Your task to perform on an android device: Show the shopping cart on newegg. Search for dell alienware on newegg, select the first entry, add it to the cart, then select checkout. Image 0: 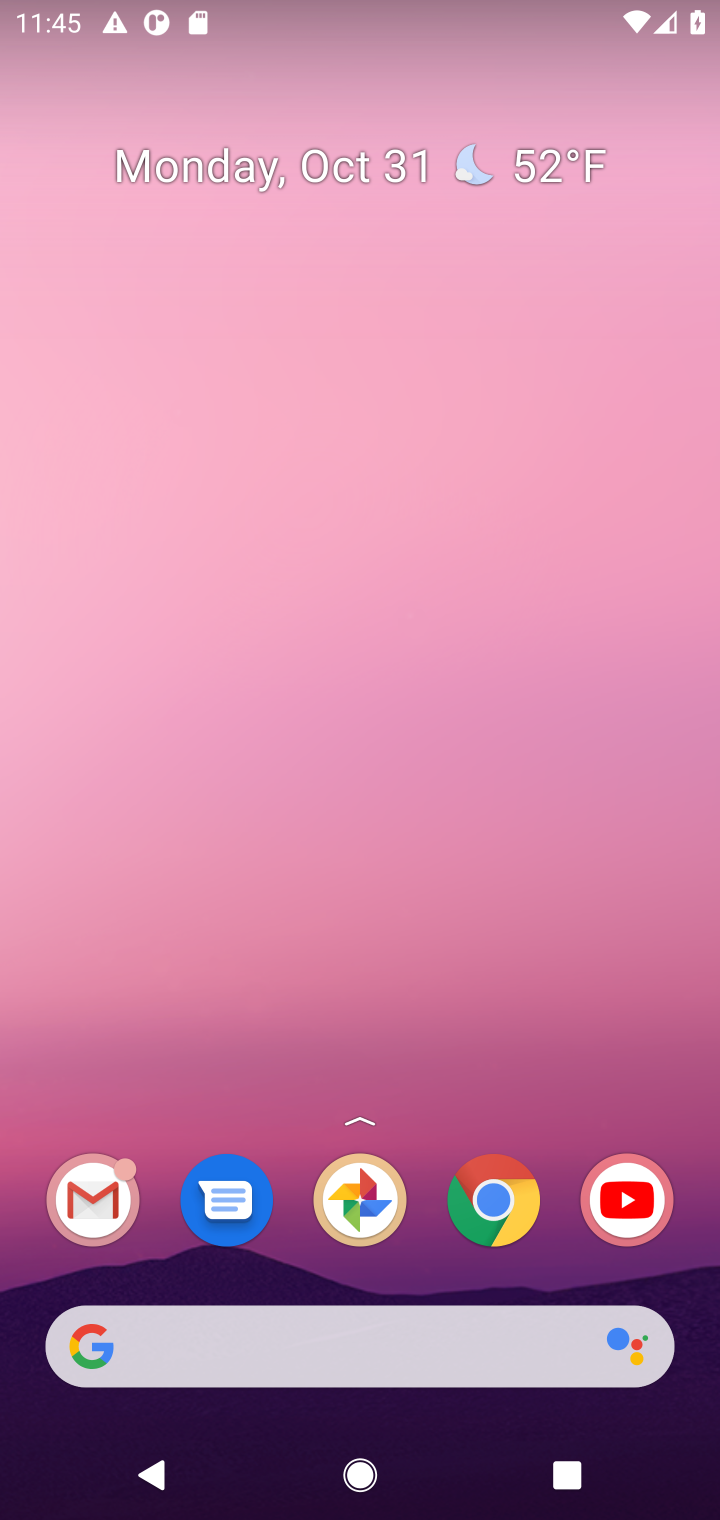
Step 0: click (487, 1212)
Your task to perform on an android device: Show the shopping cart on newegg. Search for dell alienware on newegg, select the first entry, add it to the cart, then select checkout. Image 1: 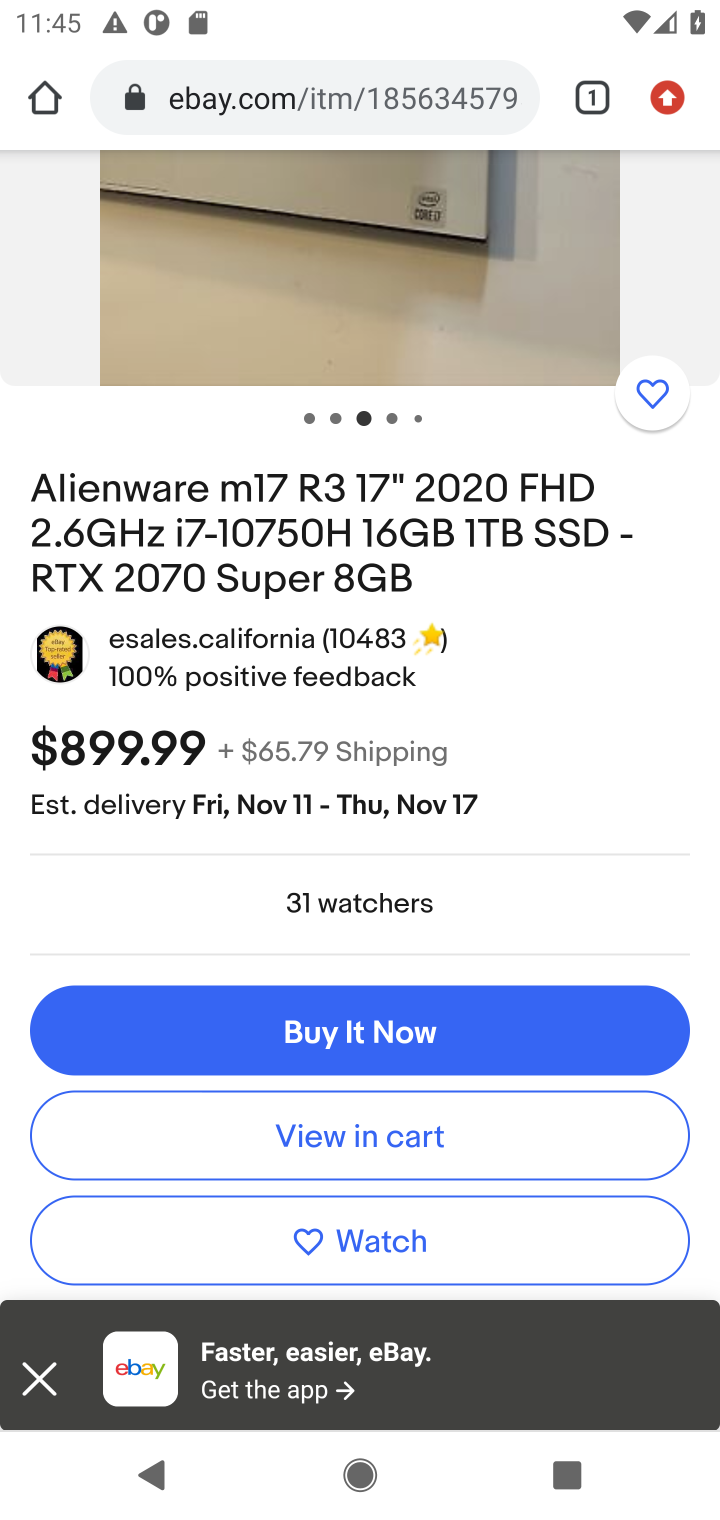
Step 1: click (296, 97)
Your task to perform on an android device: Show the shopping cart on newegg. Search for dell alienware on newegg, select the first entry, add it to the cart, then select checkout. Image 2: 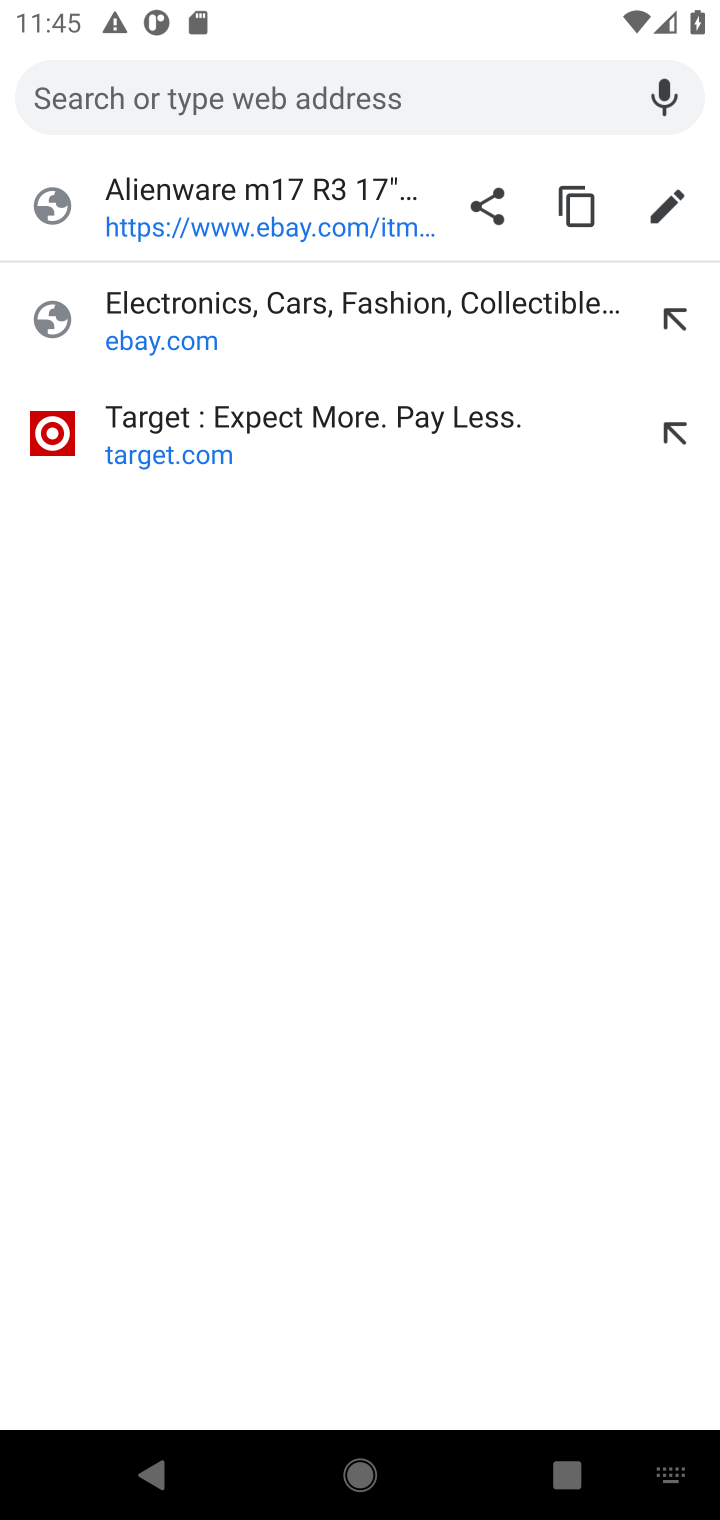
Step 2: type "newegg.com"
Your task to perform on an android device: Show the shopping cart on newegg. Search for dell alienware on newegg, select the first entry, add it to the cart, then select checkout. Image 3: 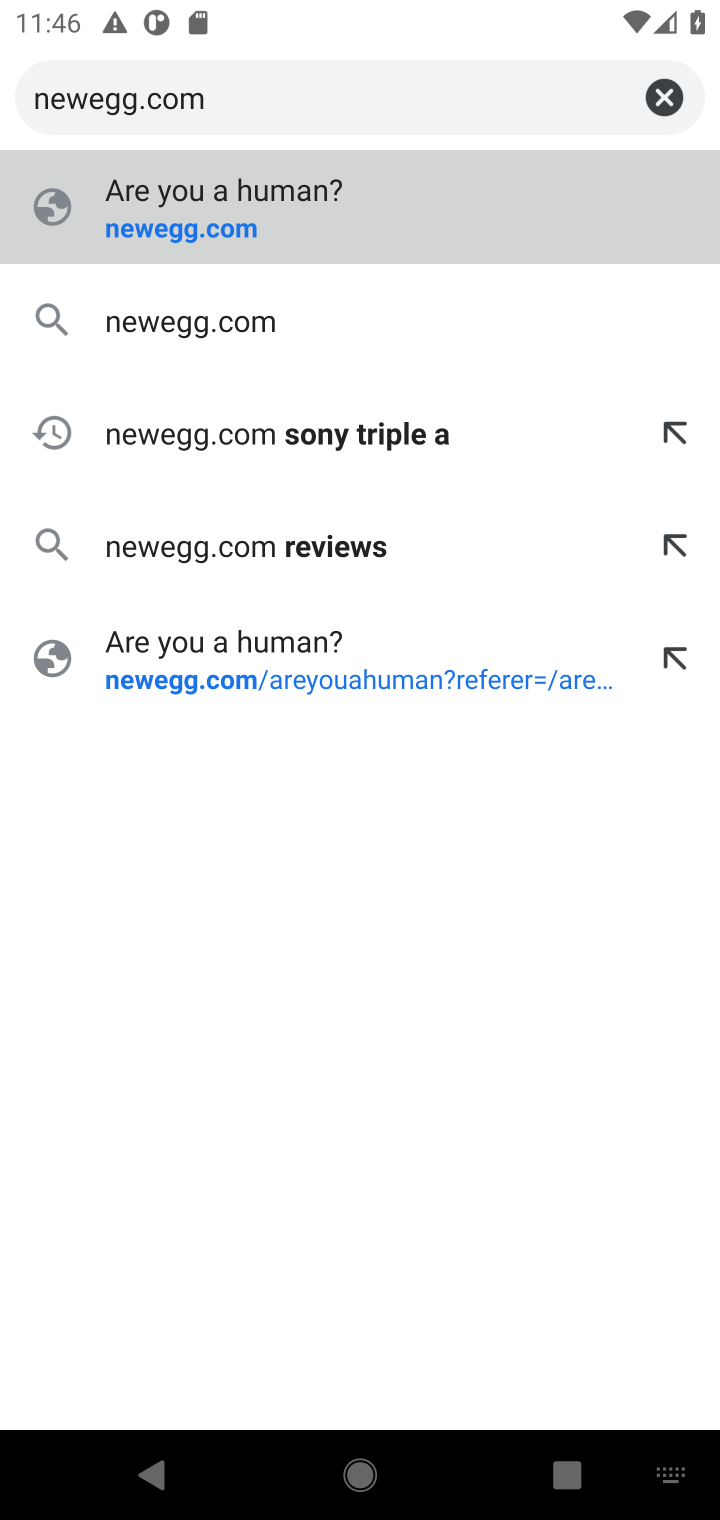
Step 3: click (226, 339)
Your task to perform on an android device: Show the shopping cart on newegg. Search for dell alienware on newegg, select the first entry, add it to the cart, then select checkout. Image 4: 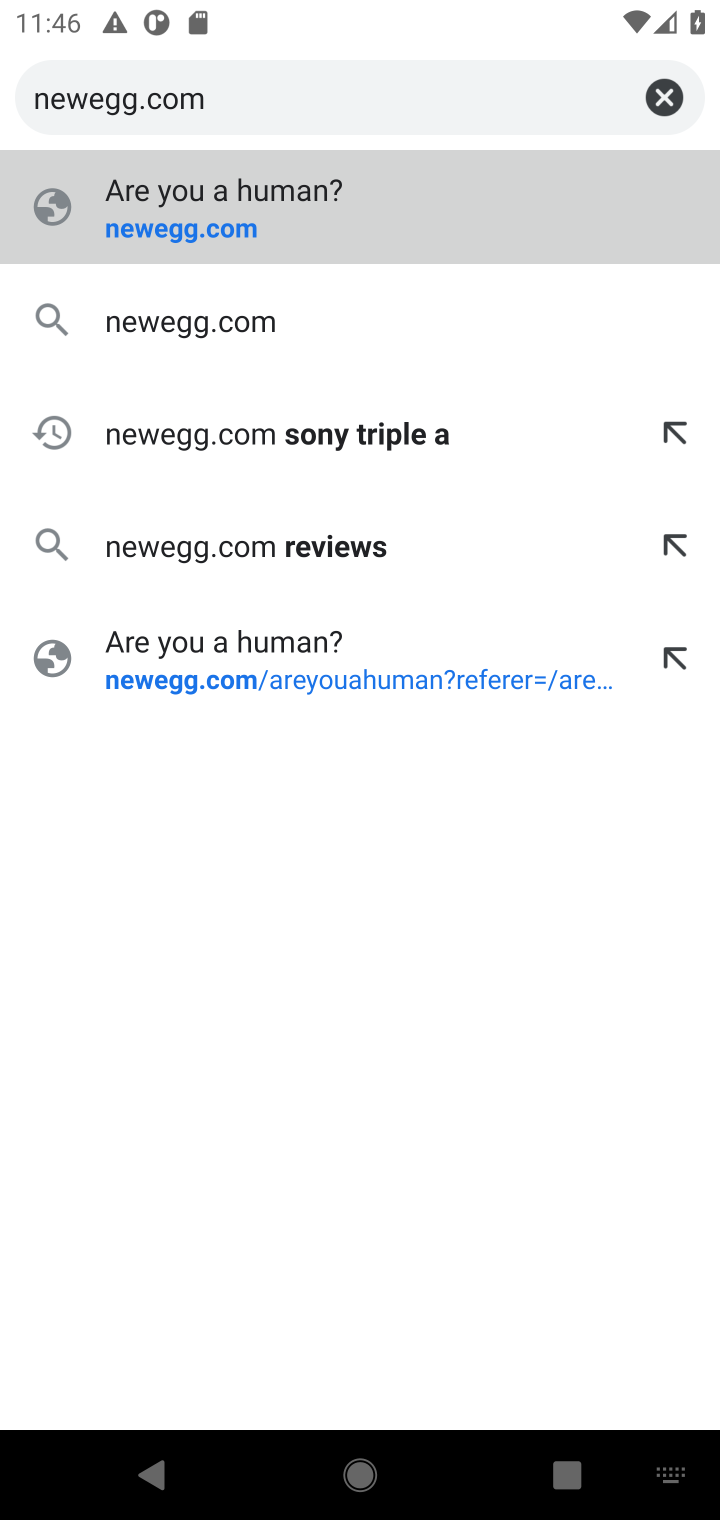
Step 4: click (159, 328)
Your task to perform on an android device: Show the shopping cart on newegg. Search for dell alienware on newegg, select the first entry, add it to the cart, then select checkout. Image 5: 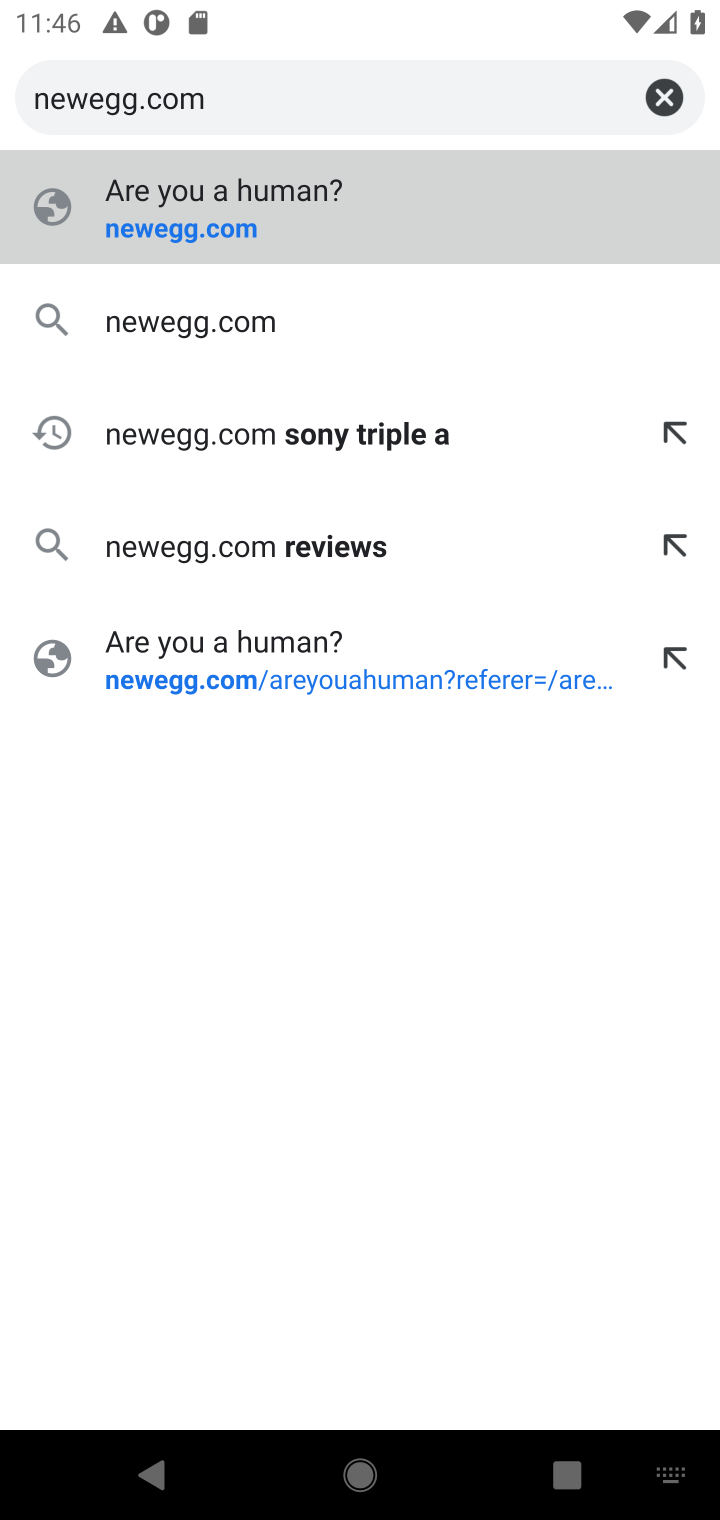
Step 5: click (226, 326)
Your task to perform on an android device: Show the shopping cart on newegg. Search for dell alienware on newegg, select the first entry, add it to the cart, then select checkout. Image 6: 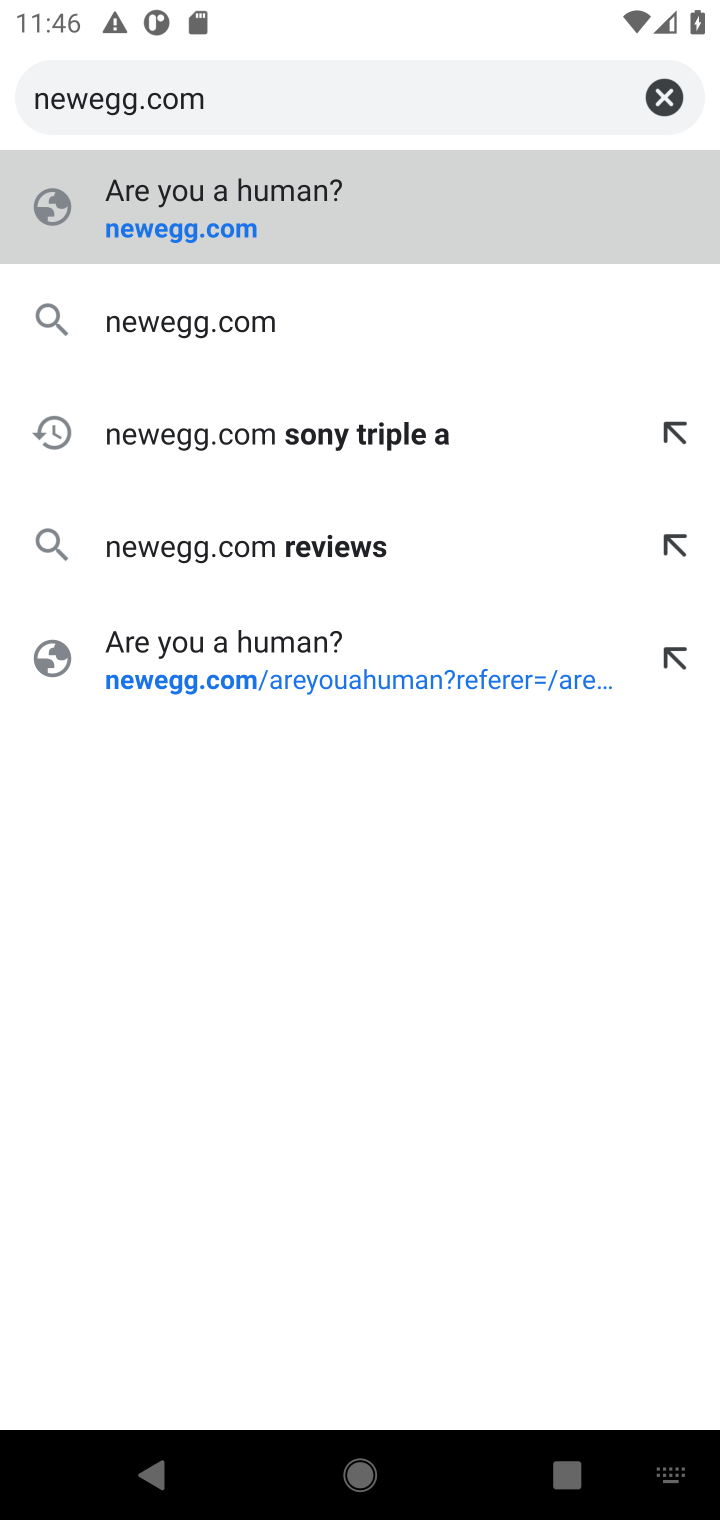
Step 6: click (185, 337)
Your task to perform on an android device: Show the shopping cart on newegg. Search for dell alienware on newegg, select the first entry, add it to the cart, then select checkout. Image 7: 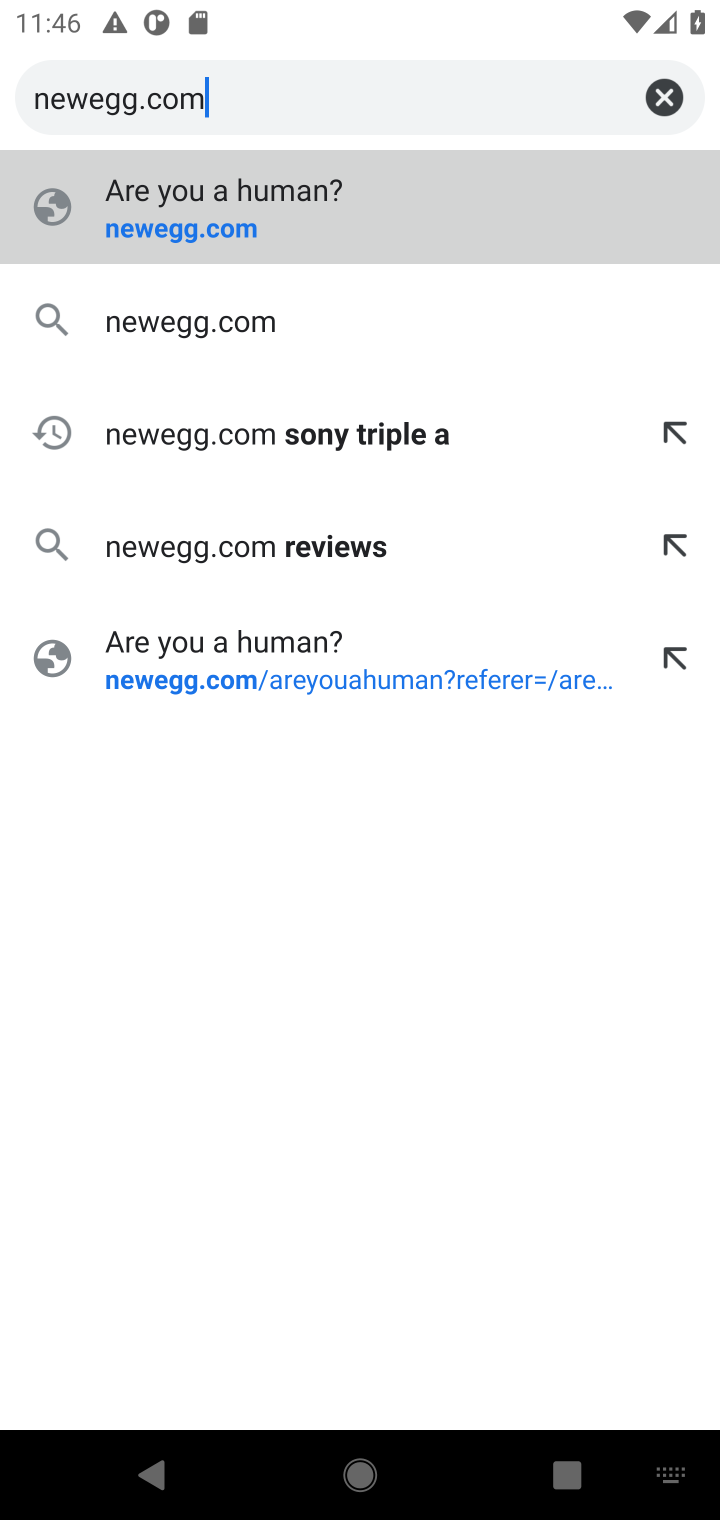
Step 7: click (238, 321)
Your task to perform on an android device: Show the shopping cart on newegg. Search for dell alienware on newegg, select the first entry, add it to the cart, then select checkout. Image 8: 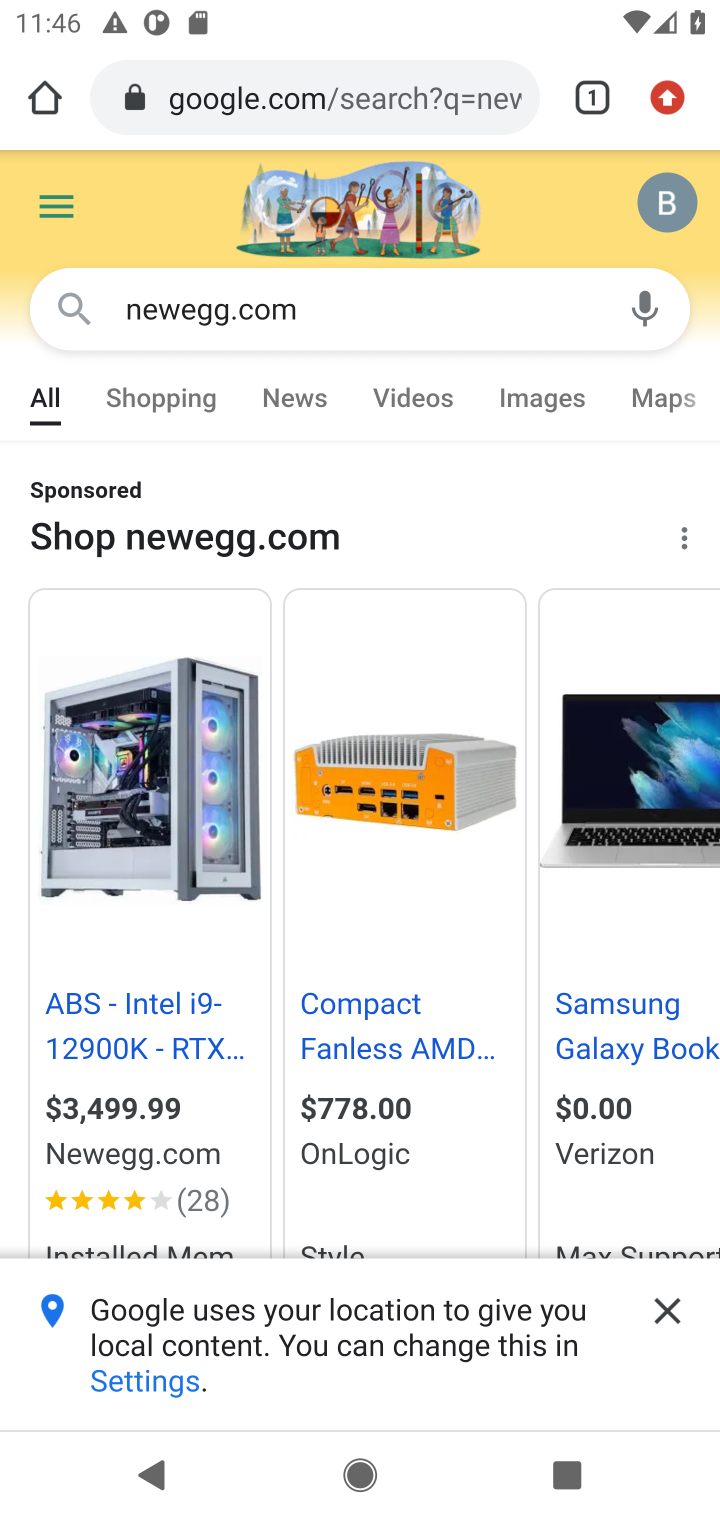
Step 8: drag from (290, 1086) to (309, 405)
Your task to perform on an android device: Show the shopping cart on newegg. Search for dell alienware on newegg, select the first entry, add it to the cart, then select checkout. Image 9: 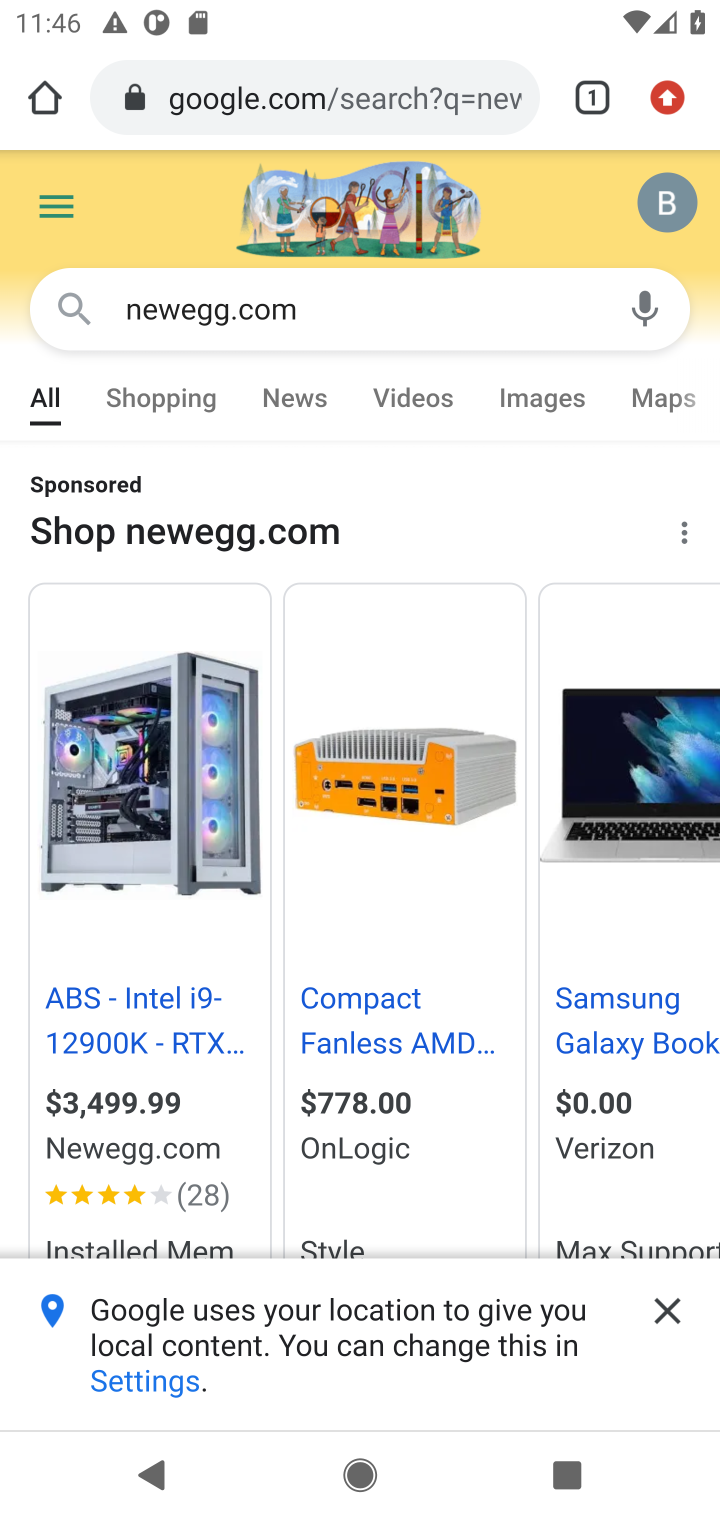
Step 9: drag from (401, 1122) to (403, 441)
Your task to perform on an android device: Show the shopping cart on newegg. Search for dell alienware on newegg, select the first entry, add it to the cart, then select checkout. Image 10: 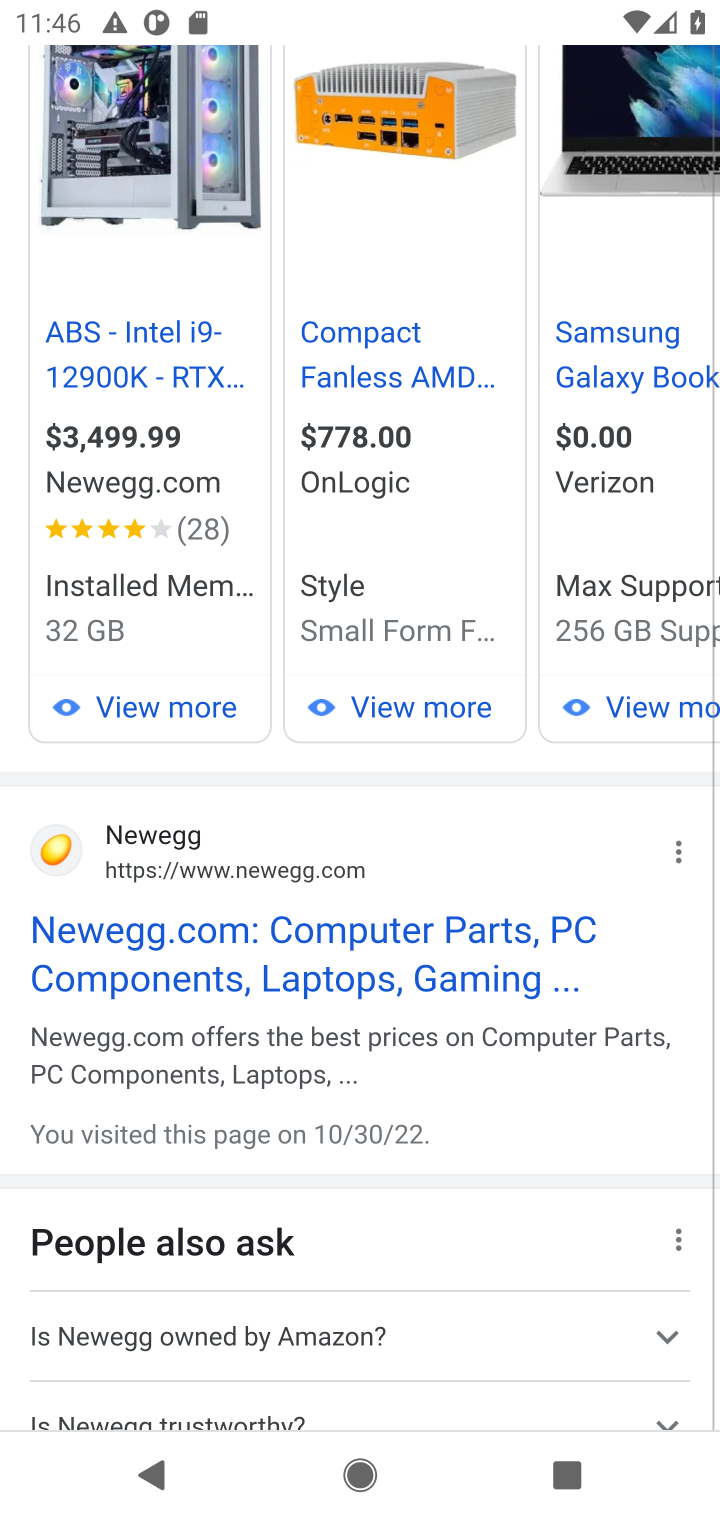
Step 10: click (173, 890)
Your task to perform on an android device: Show the shopping cart on newegg. Search for dell alienware on newegg, select the first entry, add it to the cart, then select checkout. Image 11: 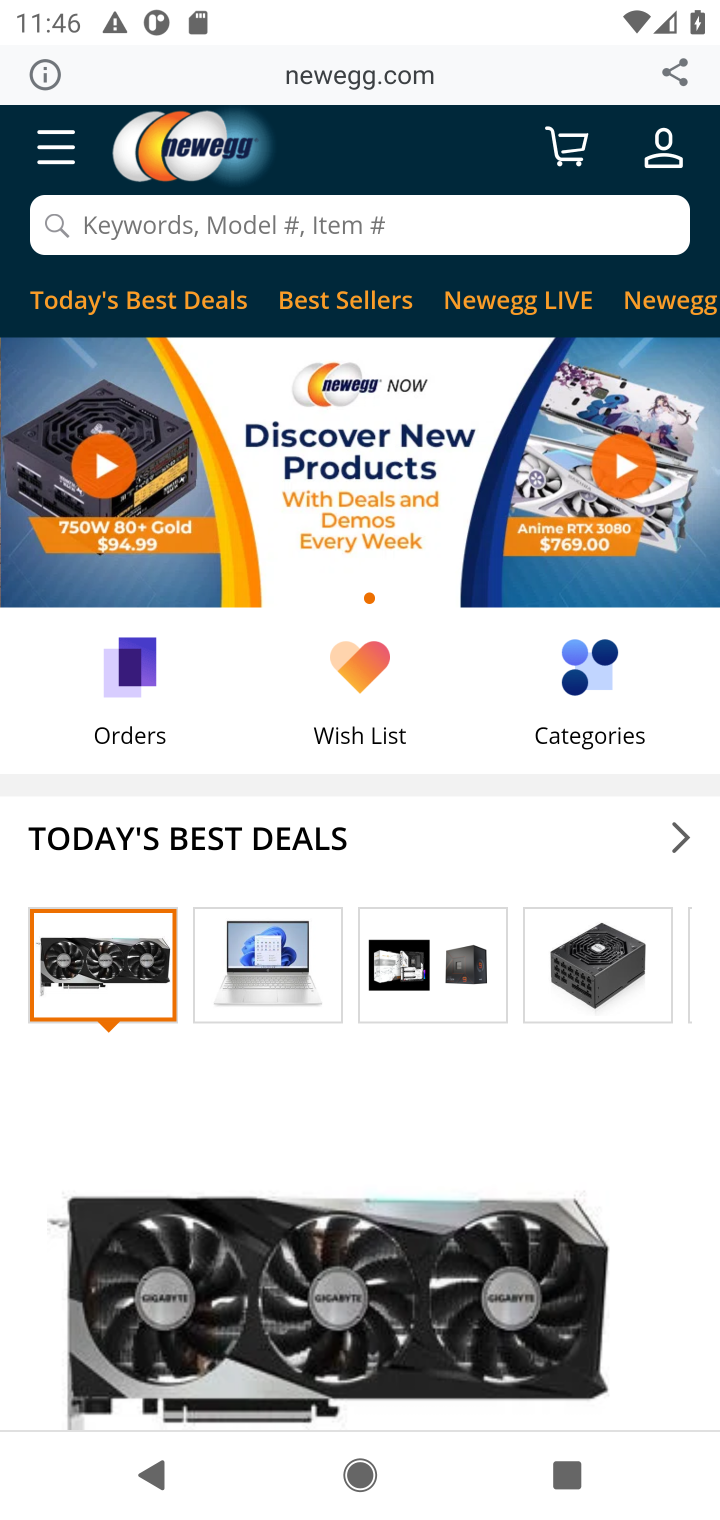
Step 11: click (555, 160)
Your task to perform on an android device: Show the shopping cart on newegg. Search for dell alienware on newegg, select the first entry, add it to the cart, then select checkout. Image 12: 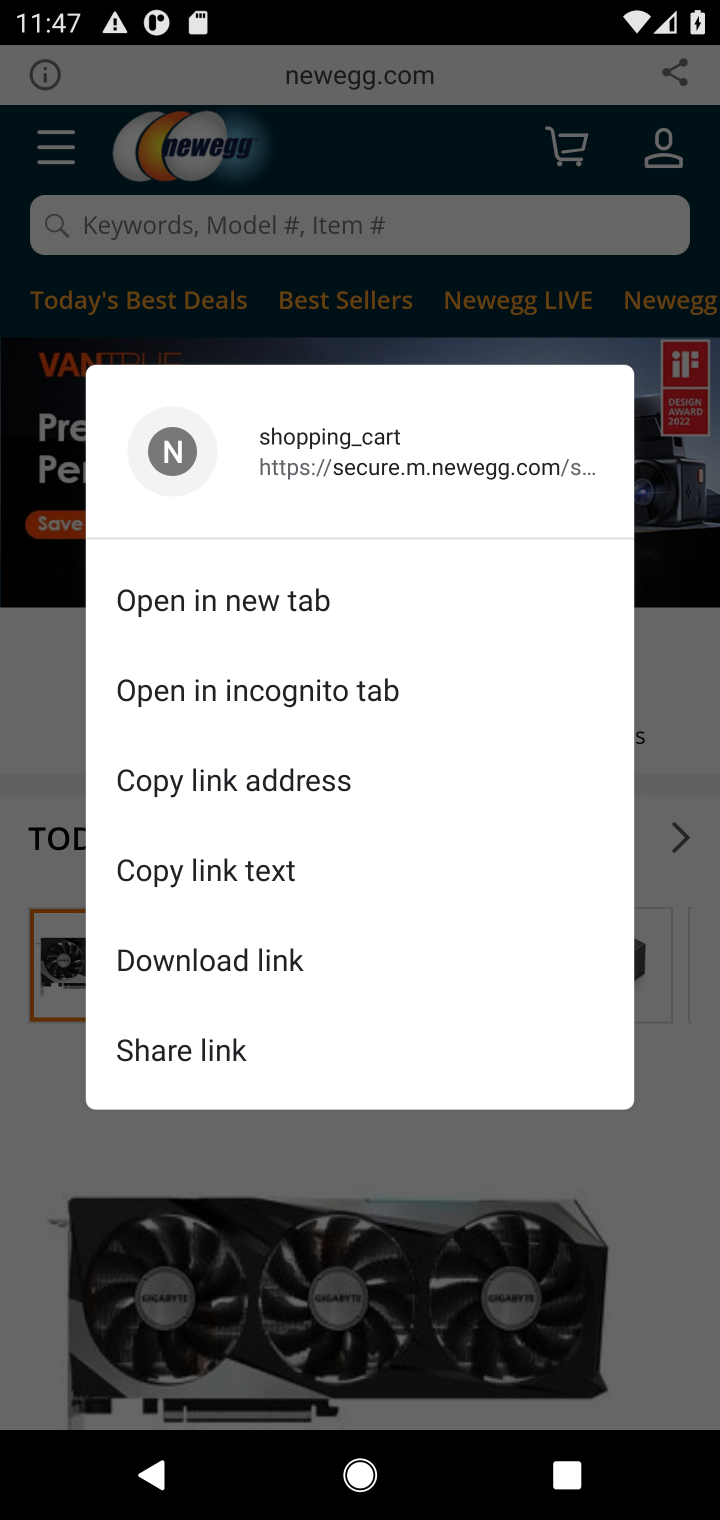
Step 12: click (570, 145)
Your task to perform on an android device: Show the shopping cart on newegg. Search for dell alienware on newegg, select the first entry, add it to the cart, then select checkout. Image 13: 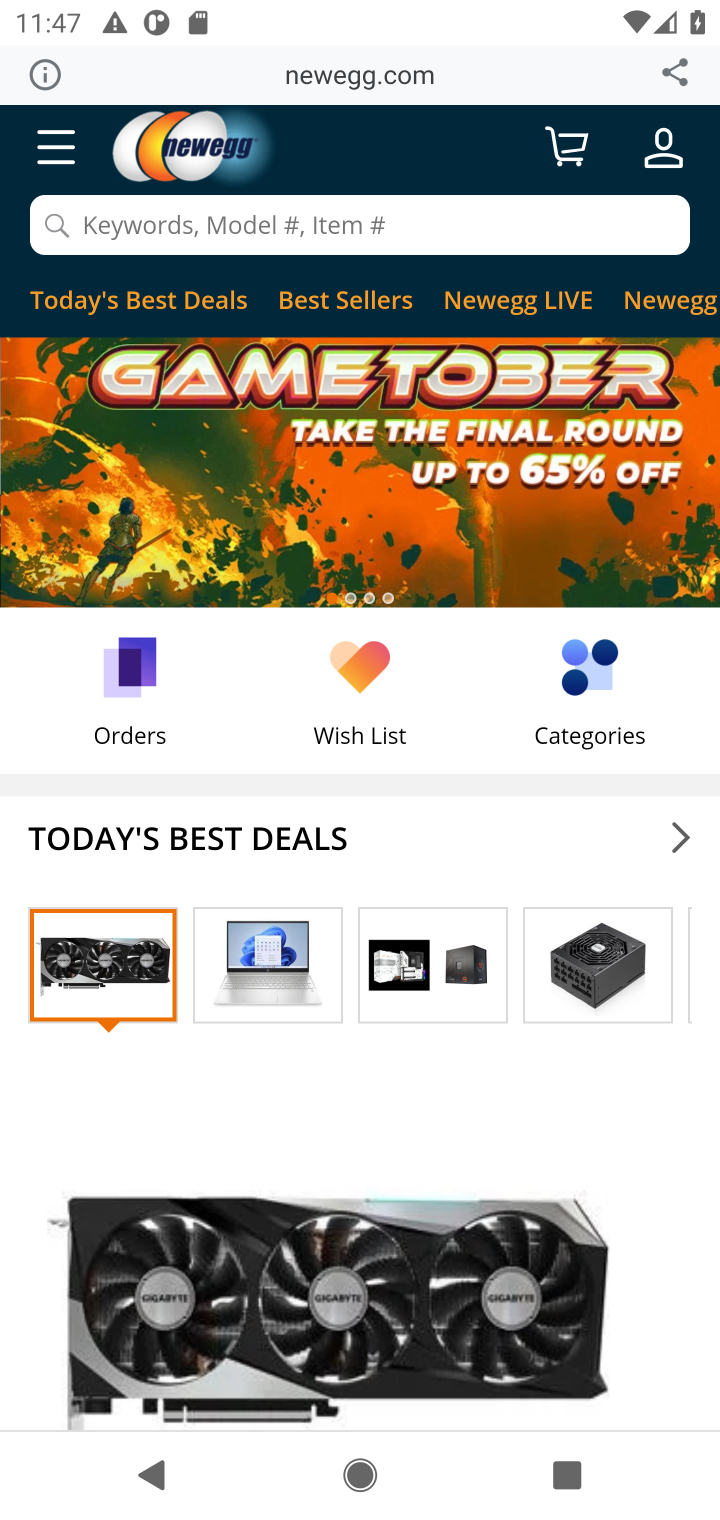
Step 13: click (571, 161)
Your task to perform on an android device: Show the shopping cart on newegg. Search for dell alienware on newegg, select the first entry, add it to the cart, then select checkout. Image 14: 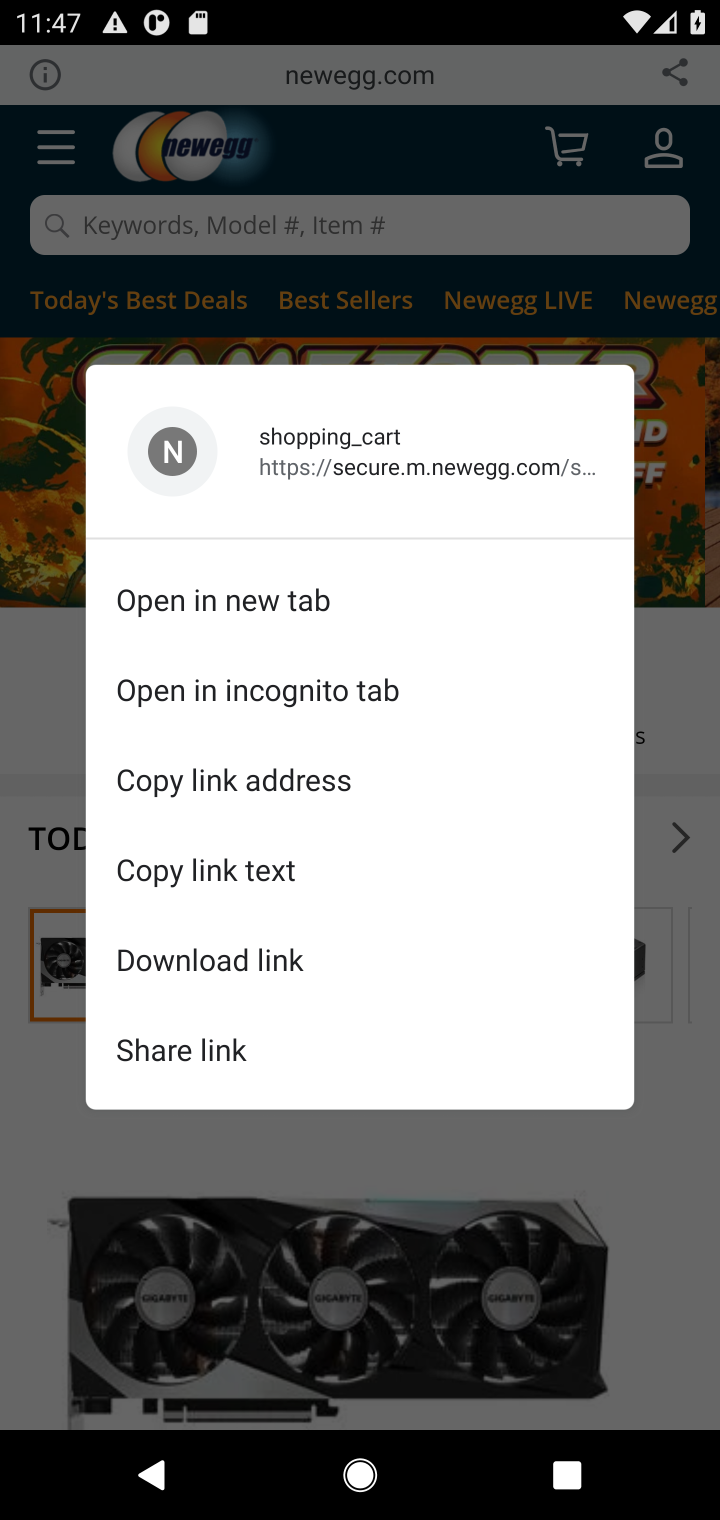
Step 14: click (571, 161)
Your task to perform on an android device: Show the shopping cart on newegg. Search for dell alienware on newegg, select the first entry, add it to the cart, then select checkout. Image 15: 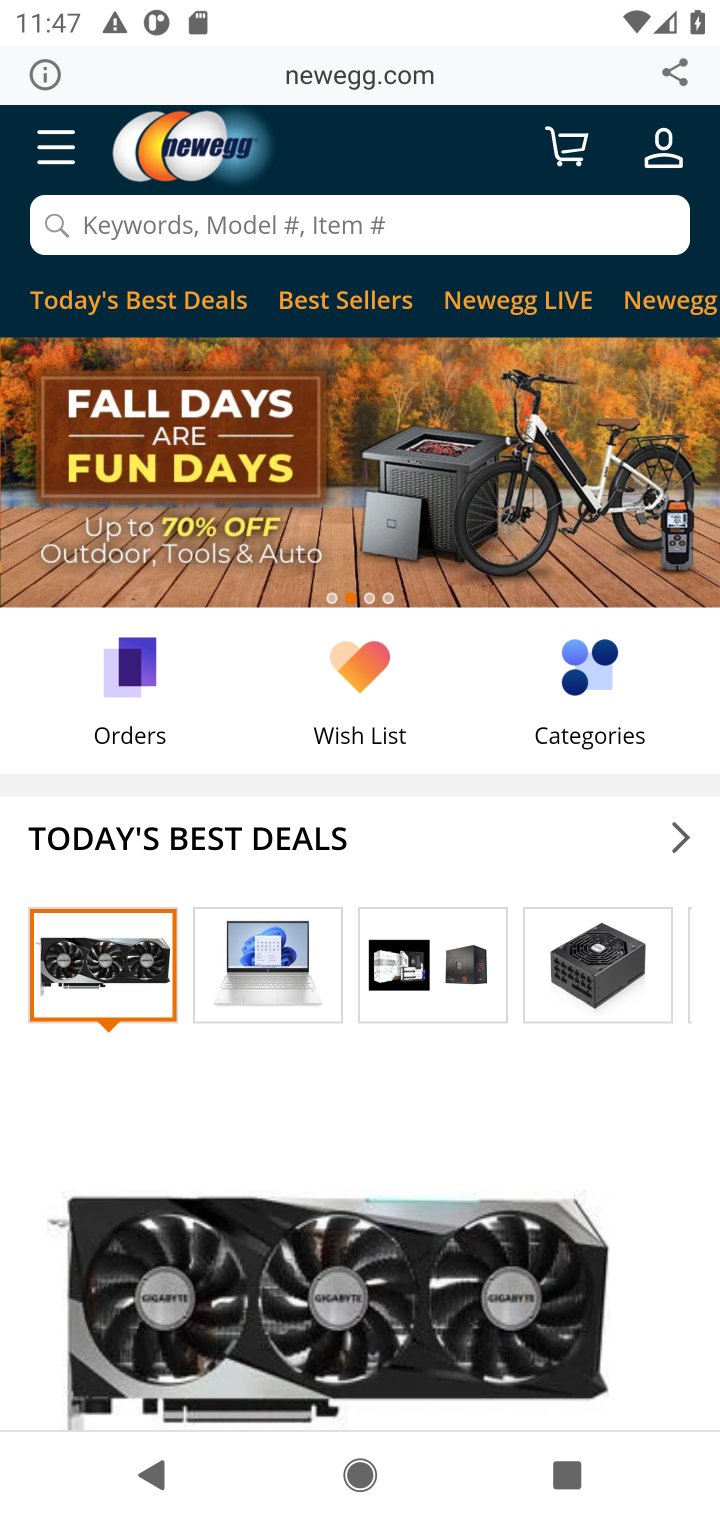
Step 15: click (576, 133)
Your task to perform on an android device: Show the shopping cart on newegg. Search for dell alienware on newegg, select the first entry, add it to the cart, then select checkout. Image 16: 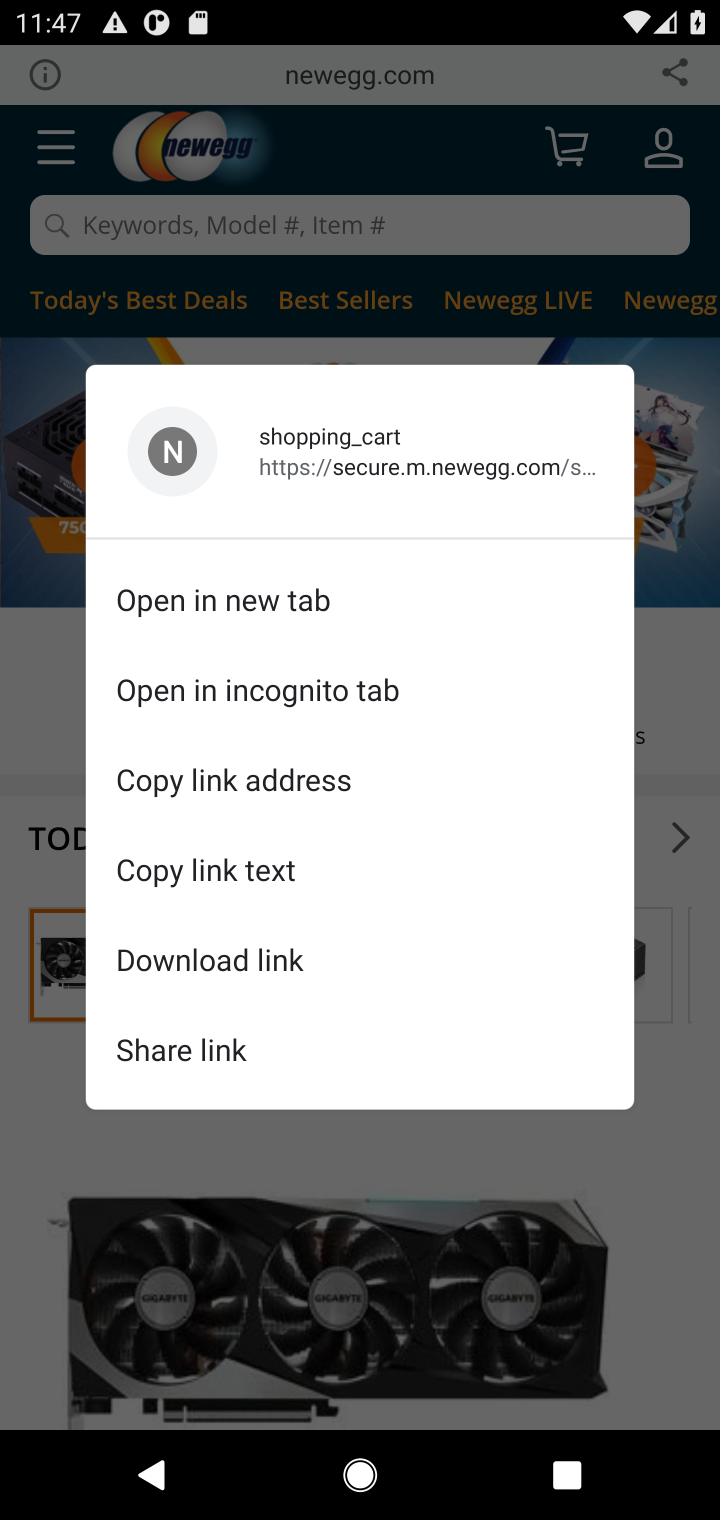
Step 16: click (564, 164)
Your task to perform on an android device: Show the shopping cart on newegg. Search for dell alienware on newegg, select the first entry, add it to the cart, then select checkout. Image 17: 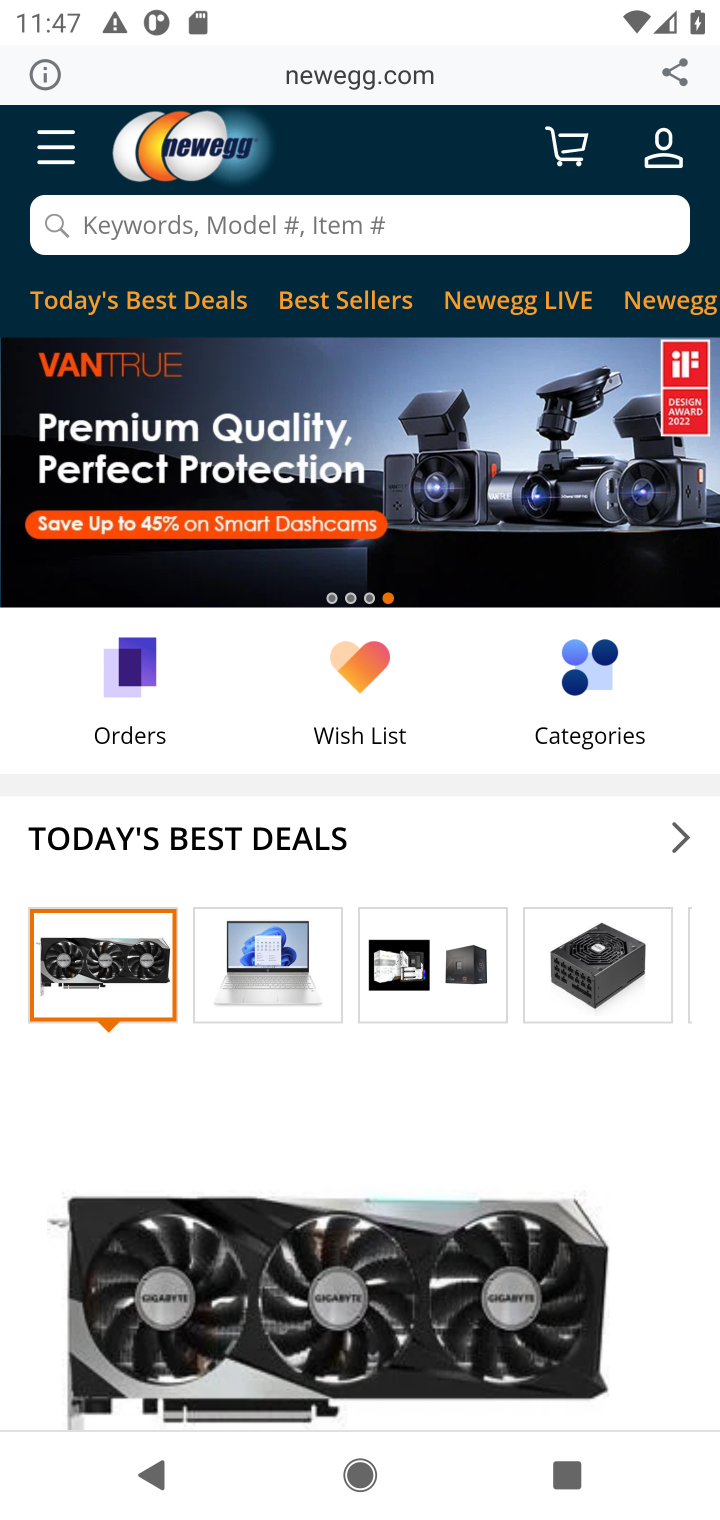
Step 17: click (586, 134)
Your task to perform on an android device: Show the shopping cart on newegg. Search for dell alienware on newegg, select the first entry, add it to the cart, then select checkout. Image 18: 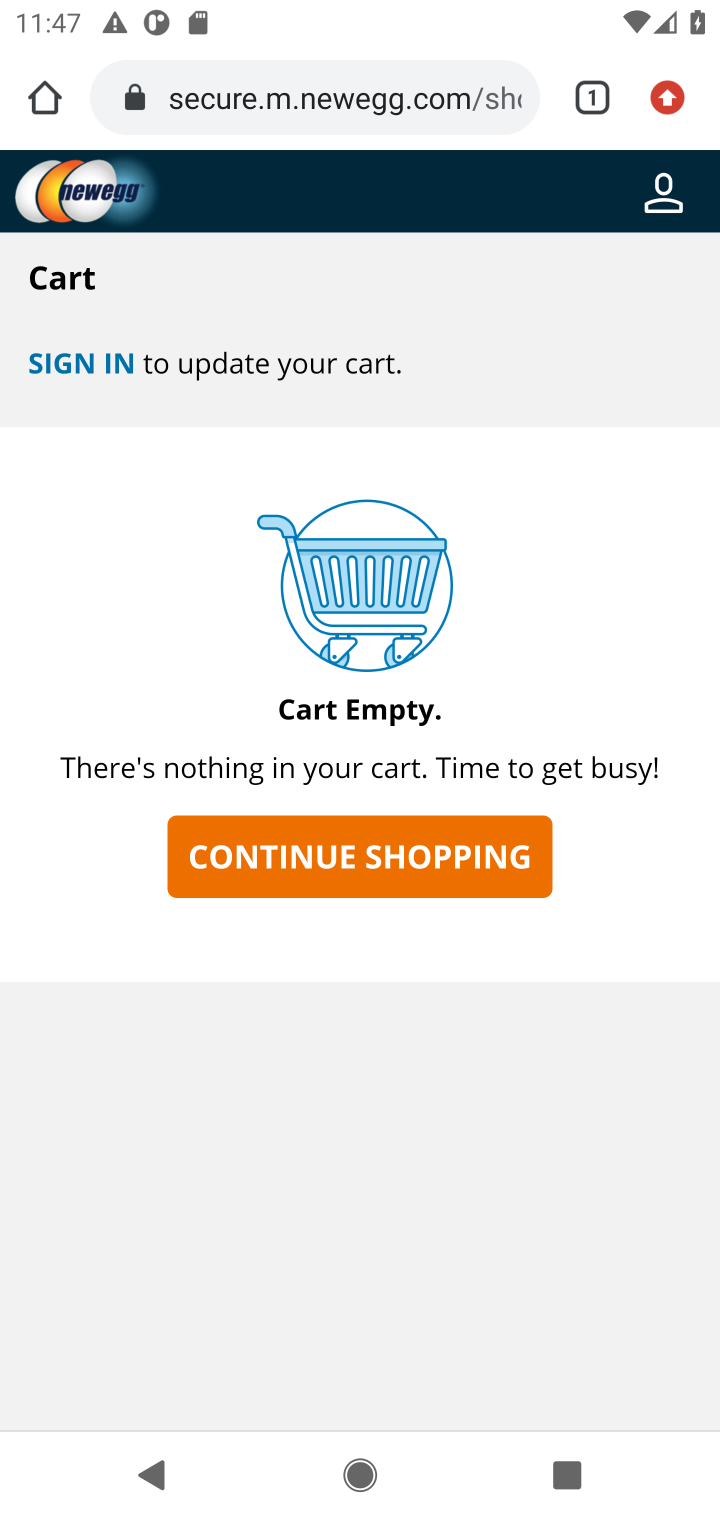
Step 18: press back button
Your task to perform on an android device: Show the shopping cart on newegg. Search for dell alienware on newegg, select the first entry, add it to the cart, then select checkout. Image 19: 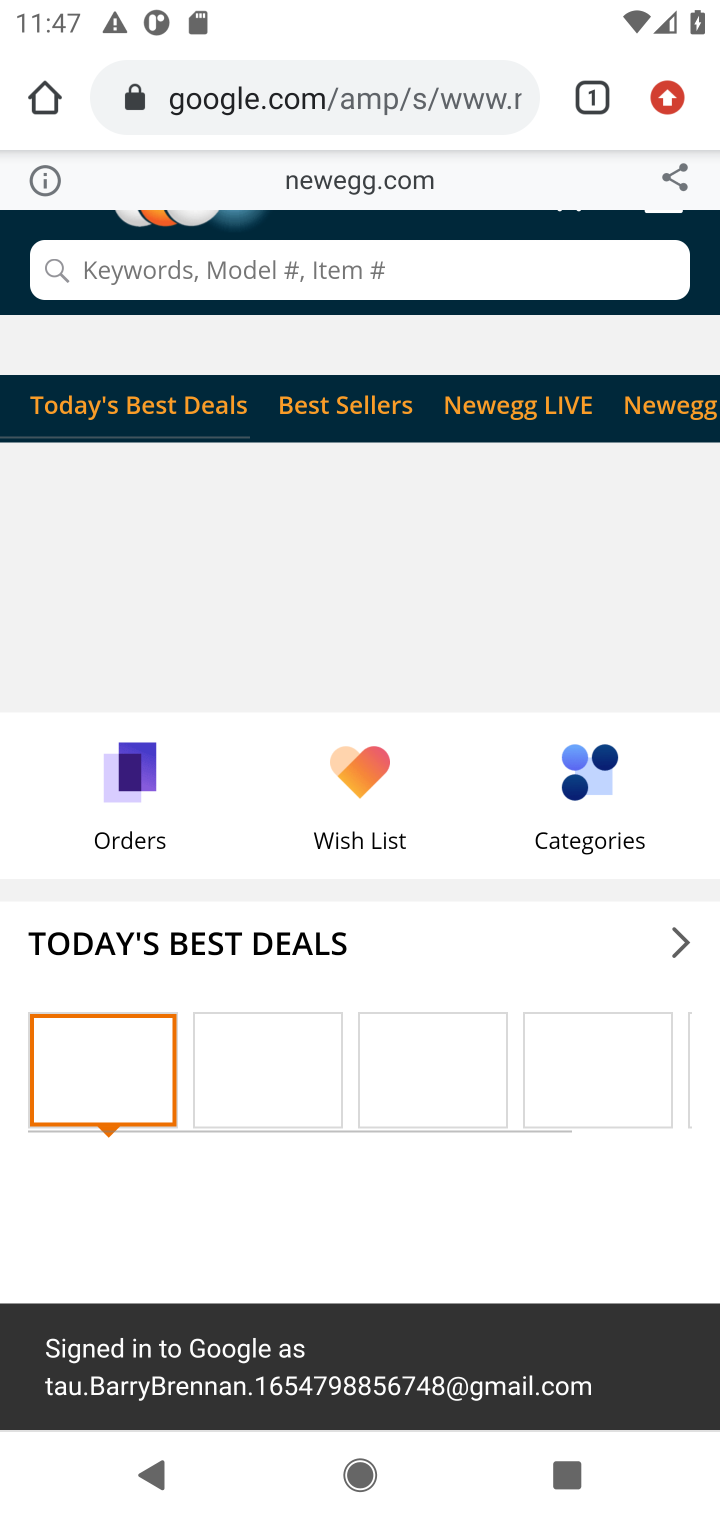
Step 19: click (257, 269)
Your task to perform on an android device: Show the shopping cart on newegg. Search for dell alienware on newegg, select the first entry, add it to the cart, then select checkout. Image 20: 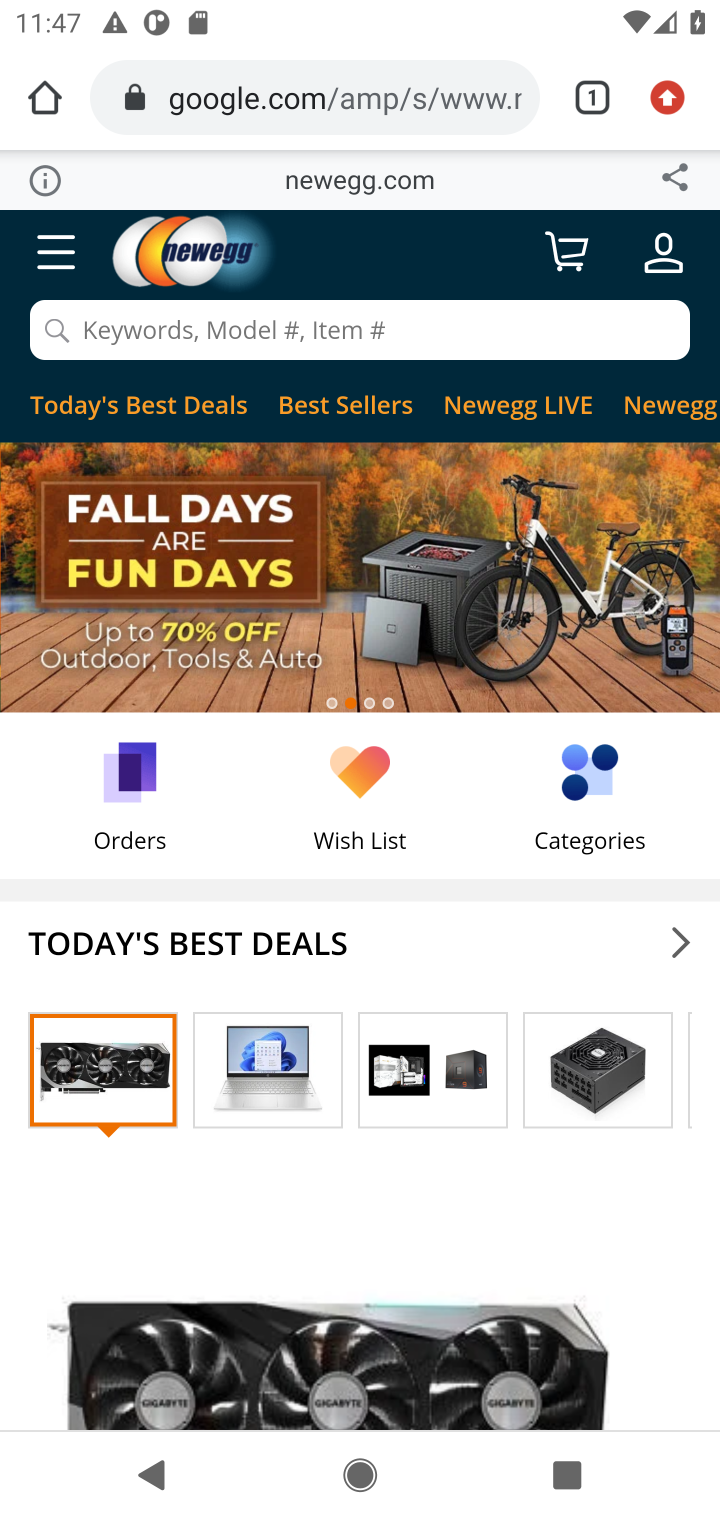
Step 20: click (189, 331)
Your task to perform on an android device: Show the shopping cart on newegg. Search for dell alienware on newegg, select the first entry, add it to the cart, then select checkout. Image 21: 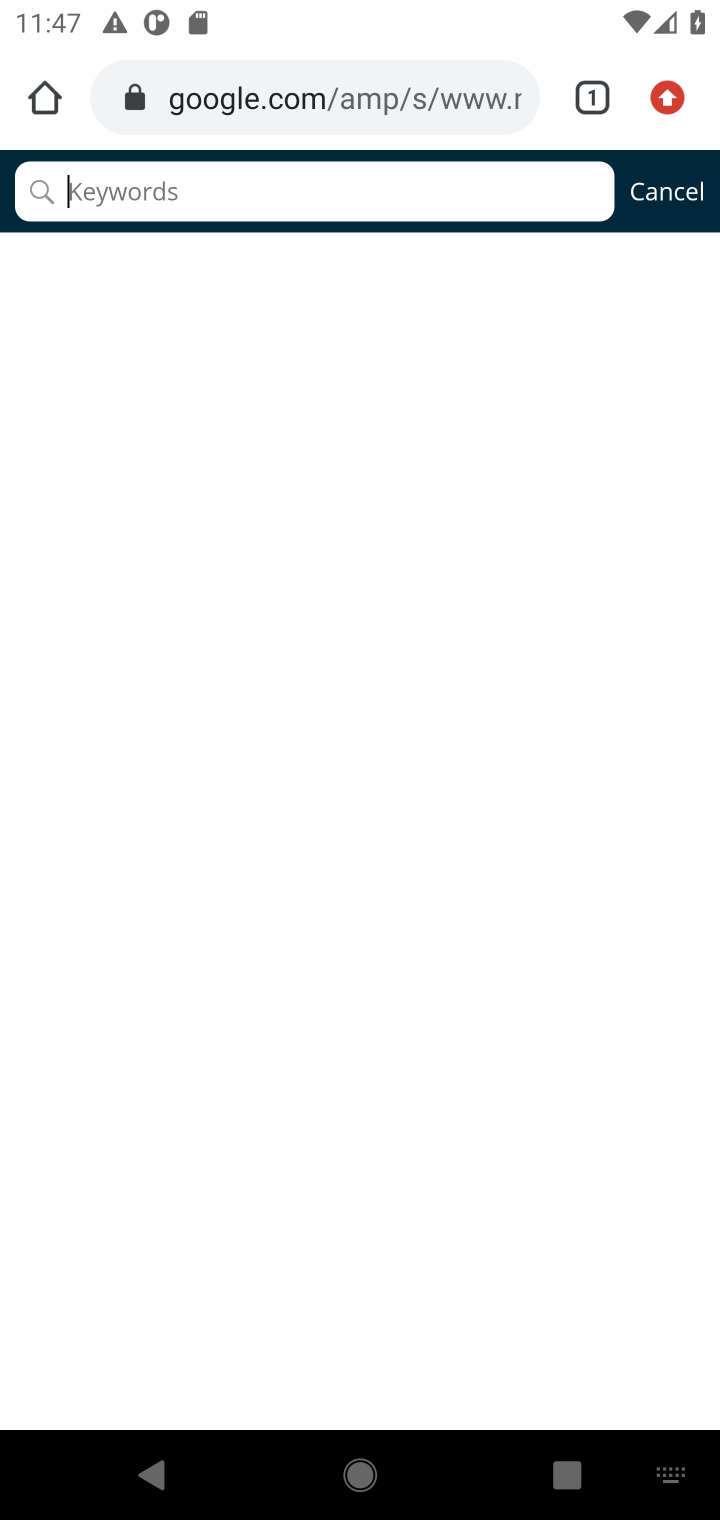
Step 21: type "dell alienware"
Your task to perform on an android device: Show the shopping cart on newegg. Search for dell alienware on newegg, select the first entry, add it to the cart, then select checkout. Image 22: 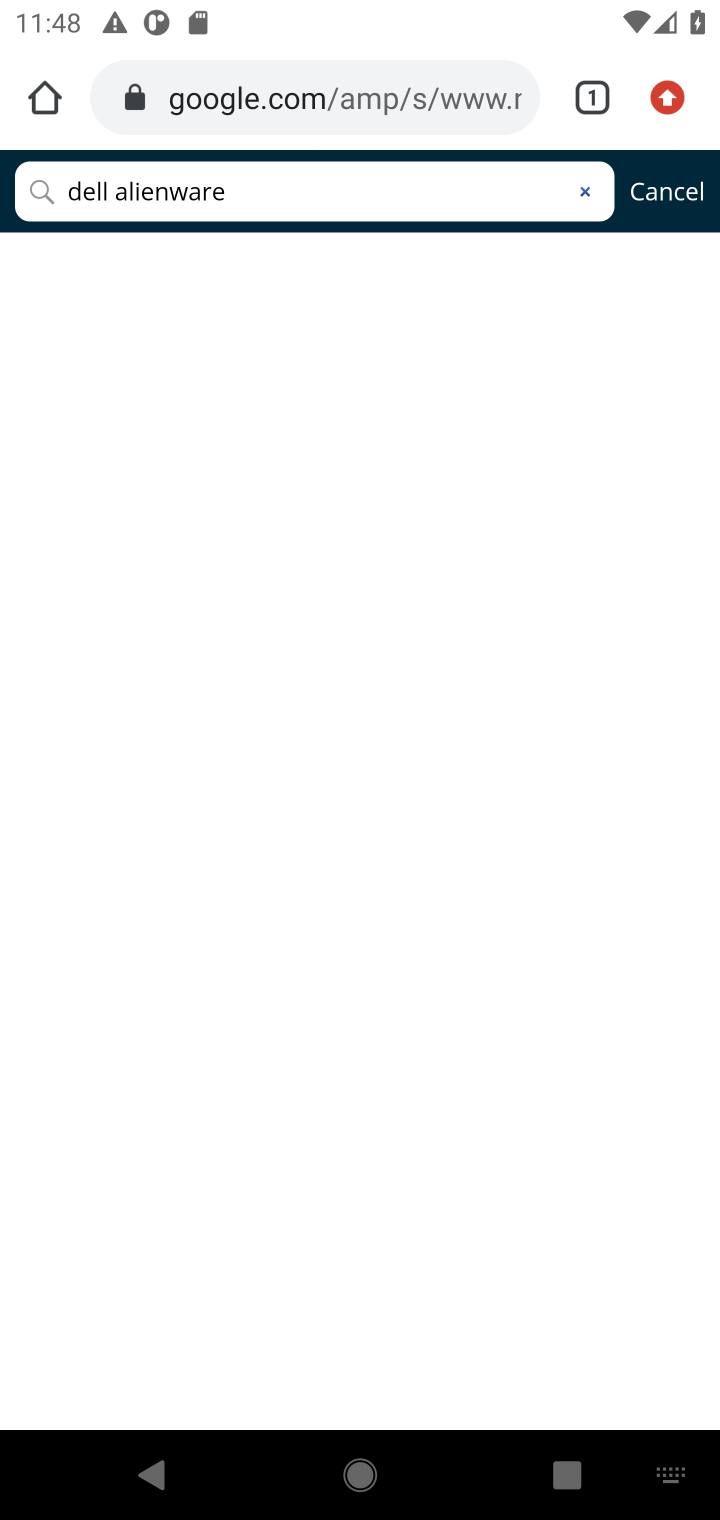
Step 22: click (471, 213)
Your task to perform on an android device: Show the shopping cart on newegg. Search for dell alienware on newegg, select the first entry, add it to the cart, then select checkout. Image 23: 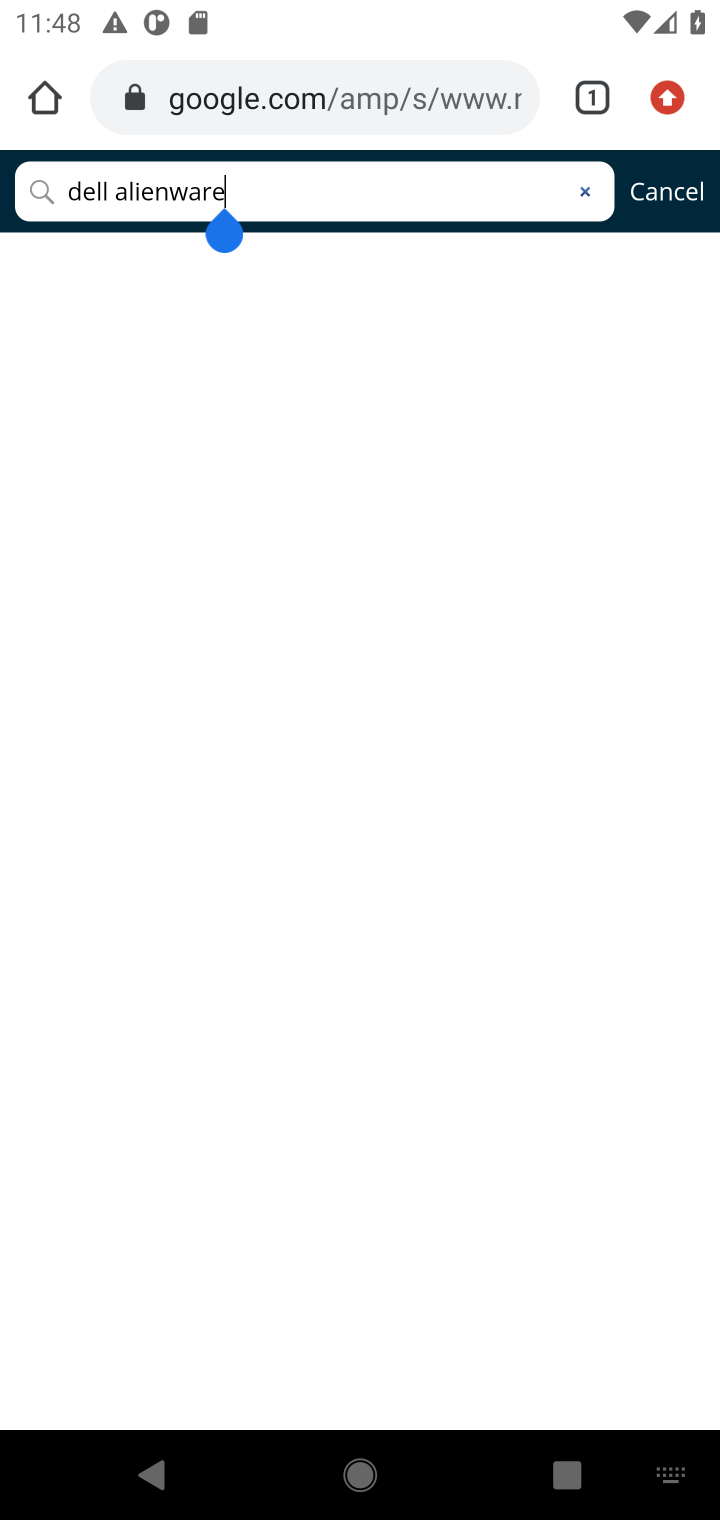
Step 23: click (50, 191)
Your task to perform on an android device: Show the shopping cart on newegg. Search for dell alienware on newegg, select the first entry, add it to the cart, then select checkout. Image 24: 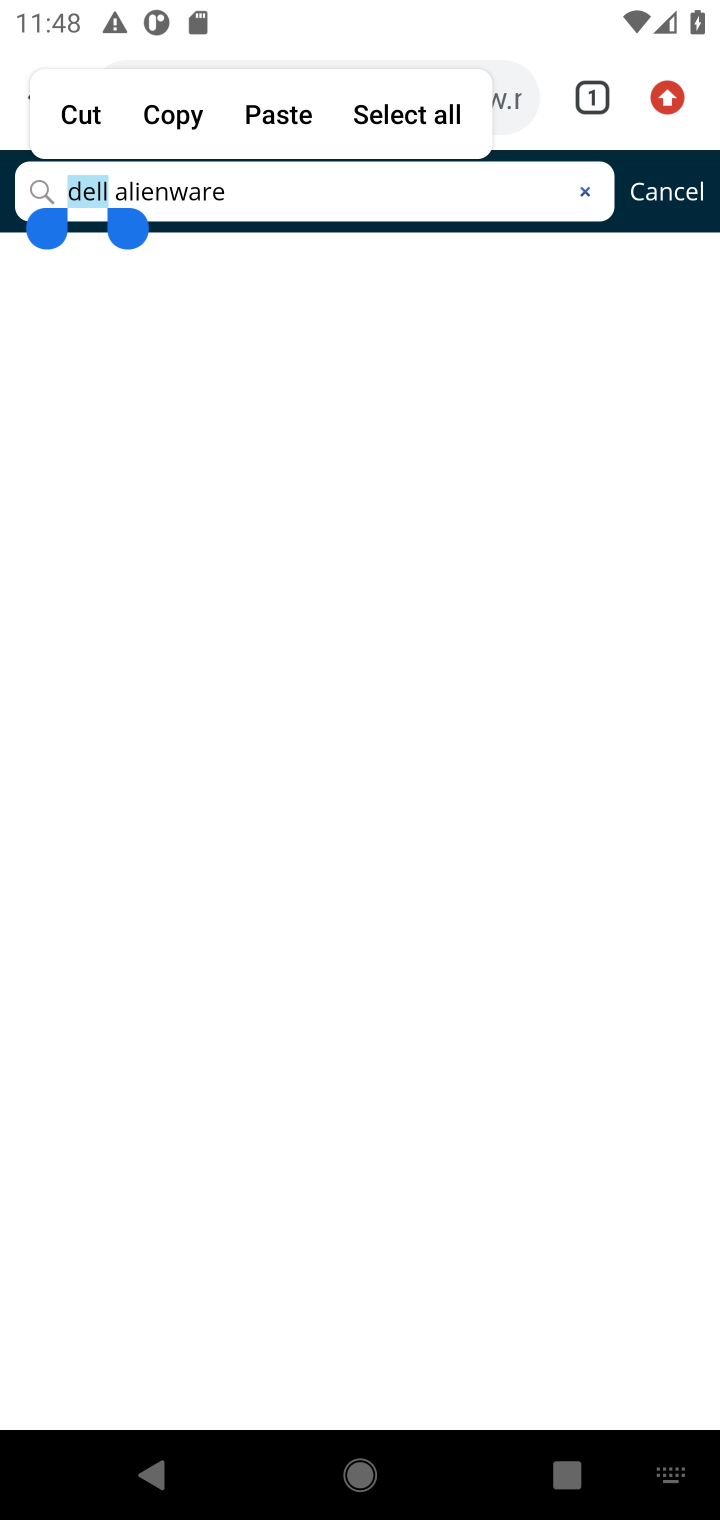
Step 24: click (46, 202)
Your task to perform on an android device: Show the shopping cart on newegg. Search for dell alienware on newegg, select the first entry, add it to the cart, then select checkout. Image 25: 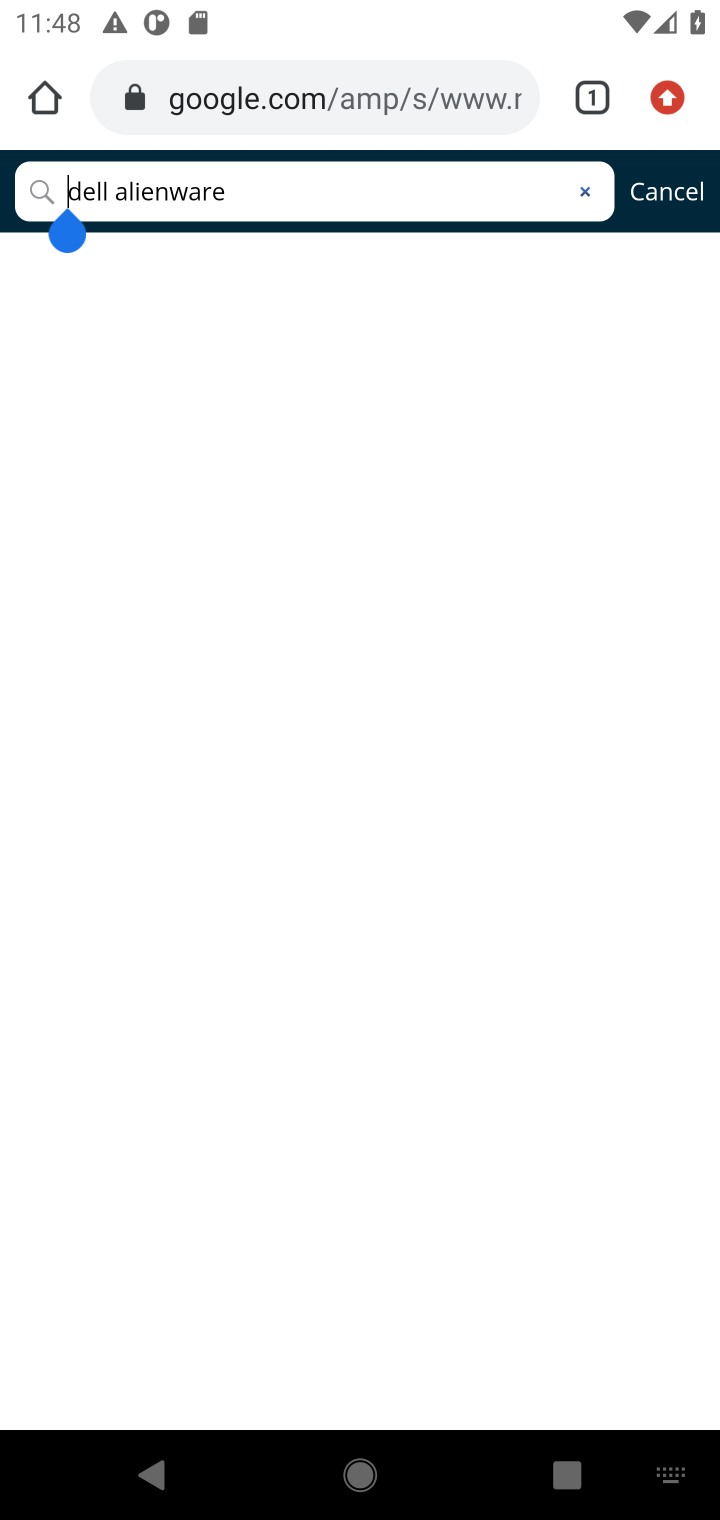
Step 25: click (48, 202)
Your task to perform on an android device: Show the shopping cart on newegg. Search for dell alienware on newegg, select the first entry, add it to the cart, then select checkout. Image 26: 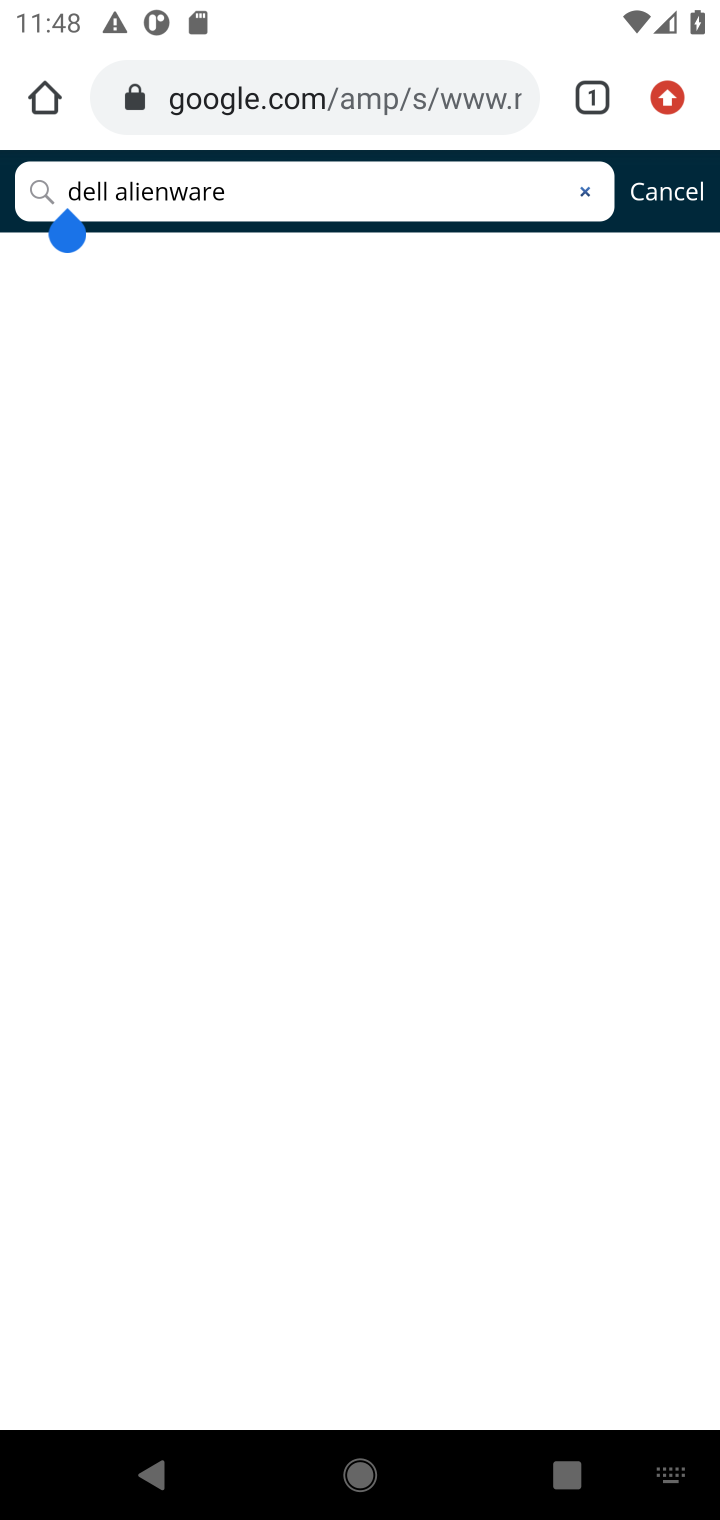
Step 26: click (53, 198)
Your task to perform on an android device: Show the shopping cart on newegg. Search for dell alienware on newegg, select the first entry, add it to the cart, then select checkout. Image 27: 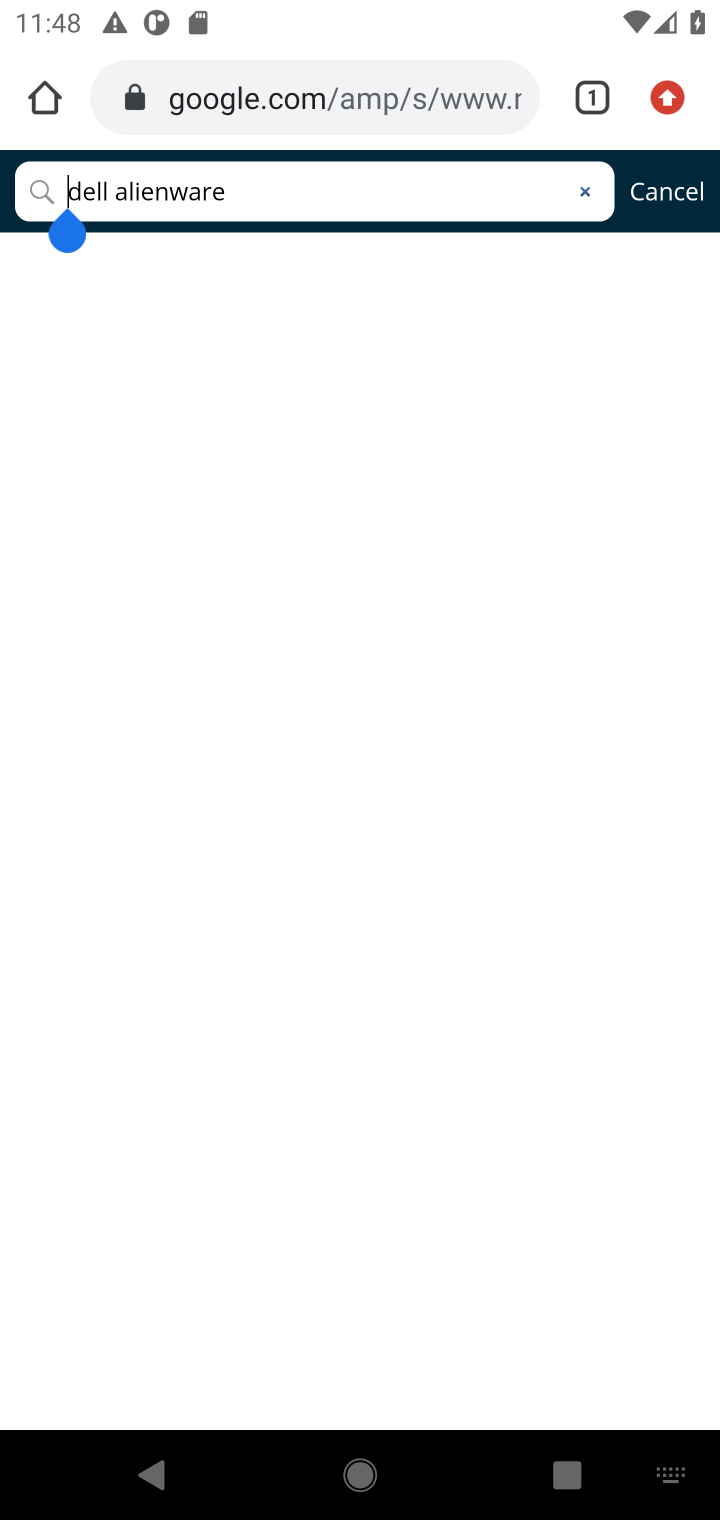
Step 27: click (24, 208)
Your task to perform on an android device: Show the shopping cart on newegg. Search for dell alienware on newegg, select the first entry, add it to the cart, then select checkout. Image 28: 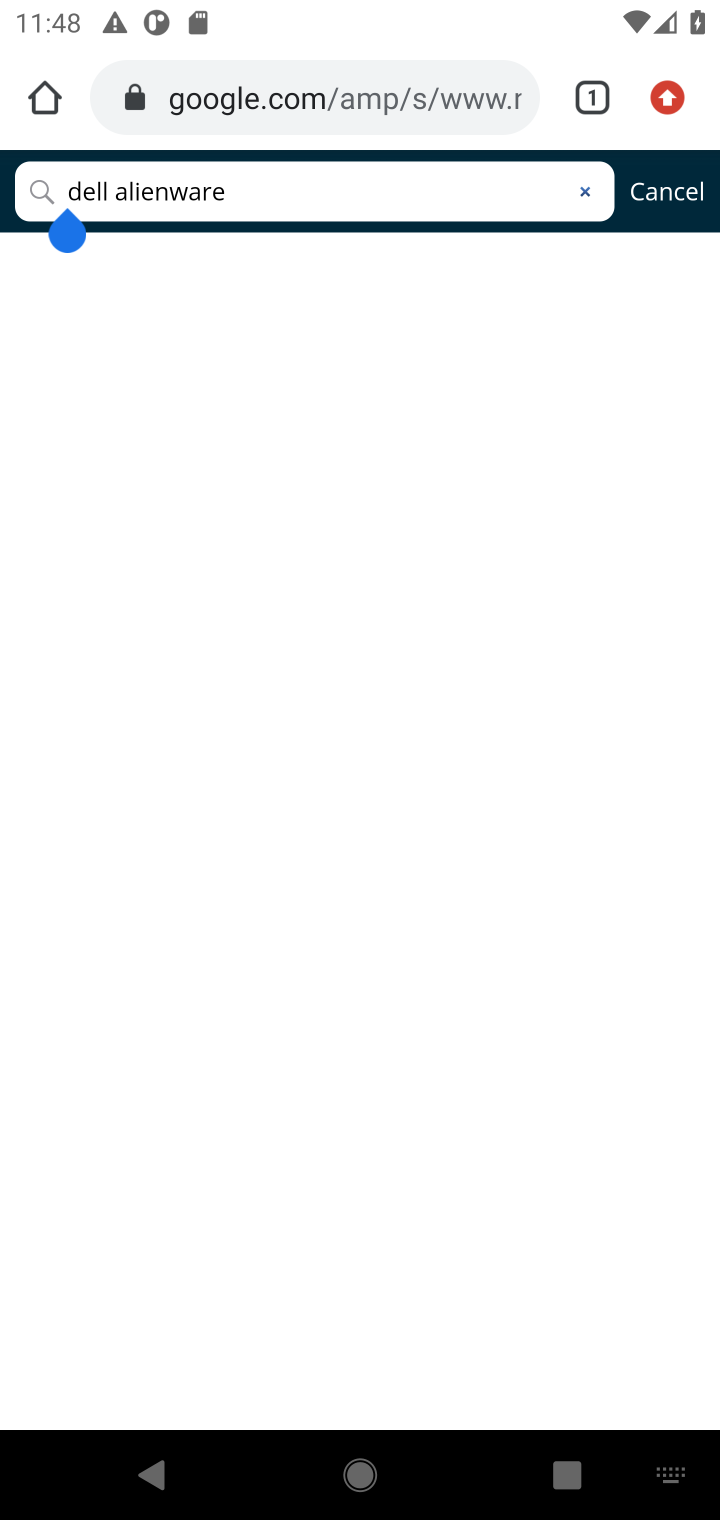
Step 28: click (40, 197)
Your task to perform on an android device: Show the shopping cart on newegg. Search for dell alienware on newegg, select the first entry, add it to the cart, then select checkout. Image 29: 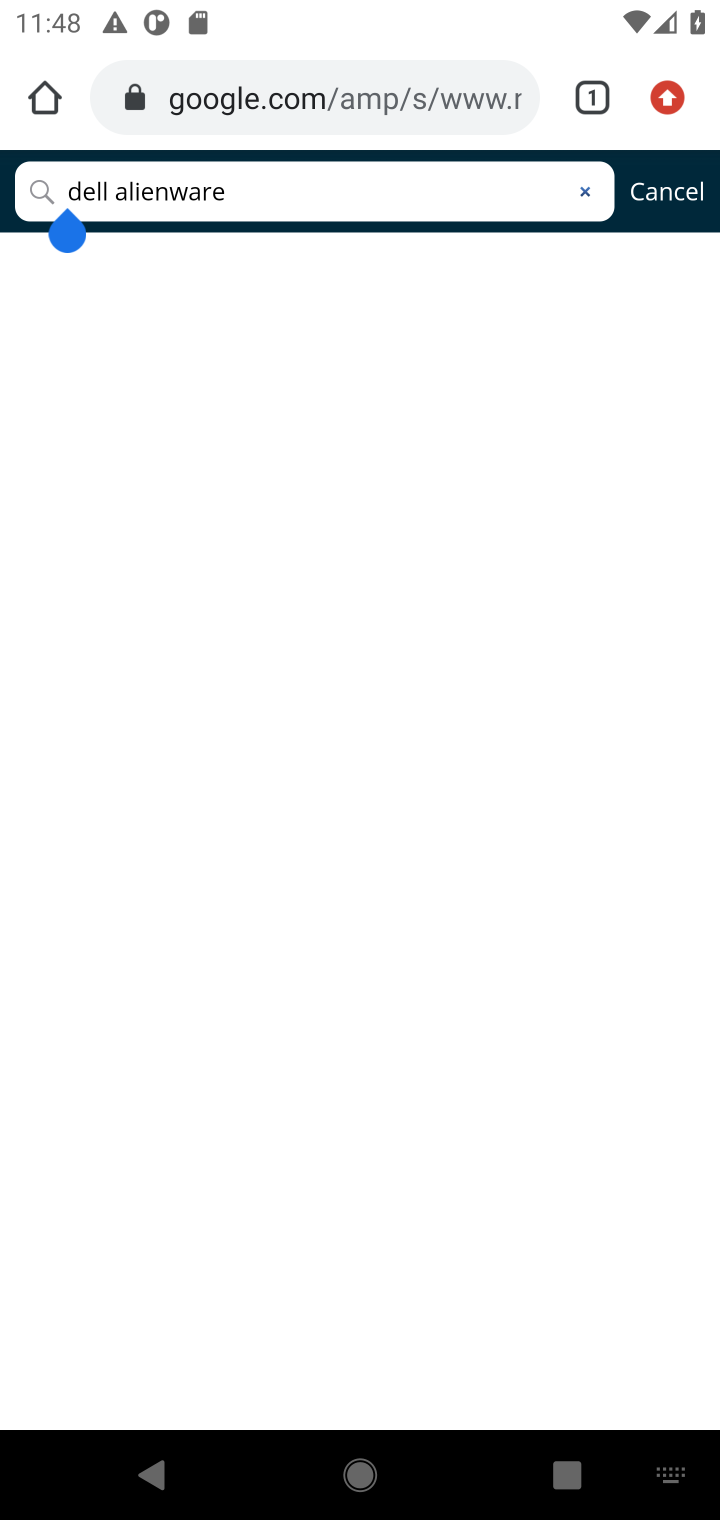
Step 29: task complete